Your task to perform on an android device: change the clock display to digital Image 0: 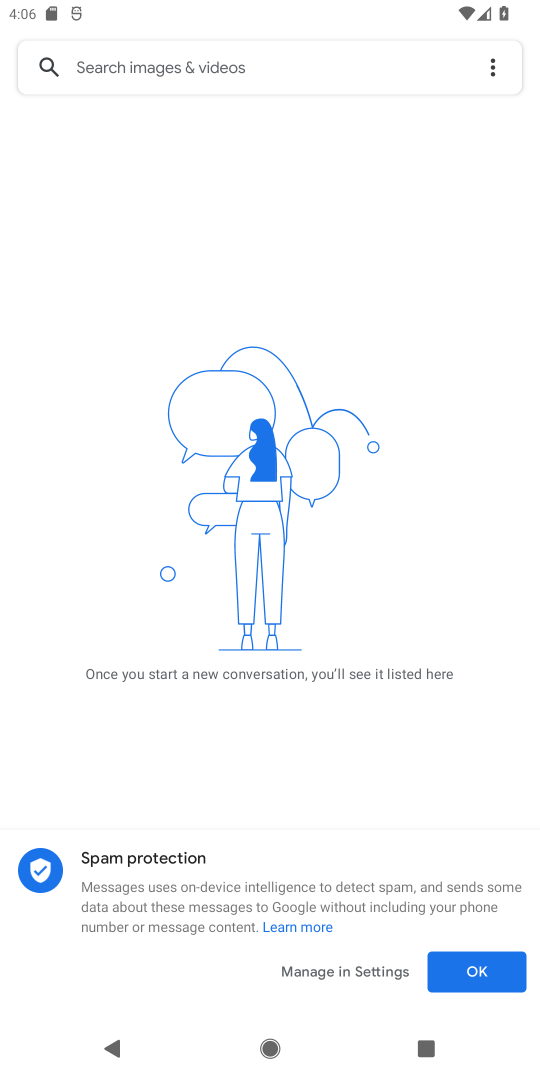
Step 0: press home button
Your task to perform on an android device: change the clock display to digital Image 1: 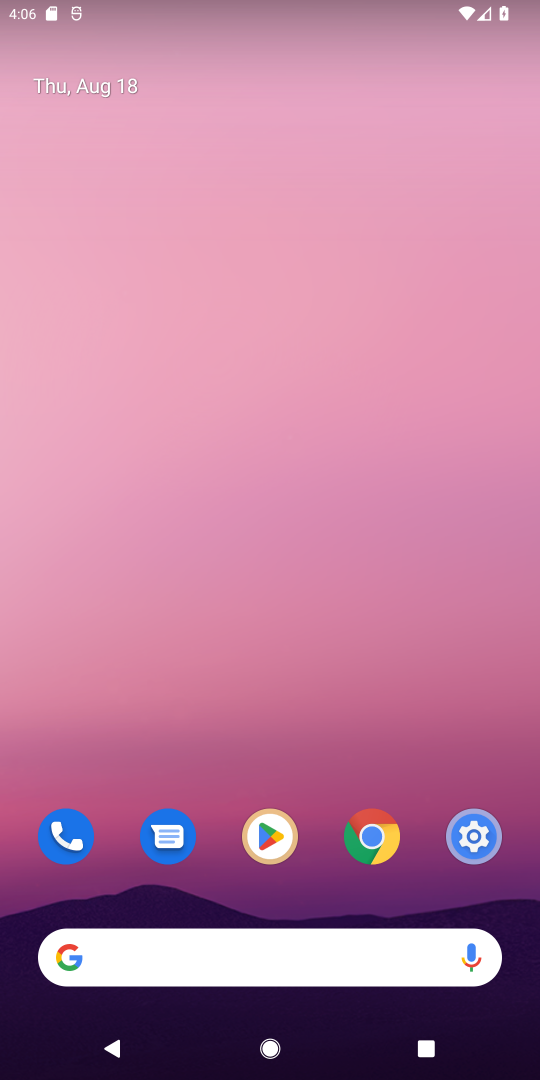
Step 1: drag from (343, 766) to (294, 251)
Your task to perform on an android device: change the clock display to digital Image 2: 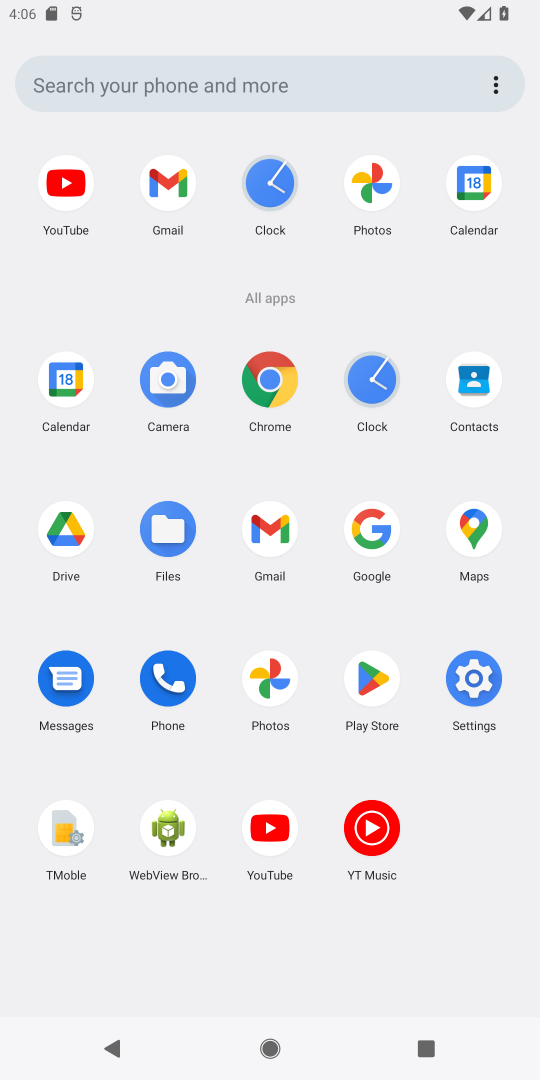
Step 2: click (362, 363)
Your task to perform on an android device: change the clock display to digital Image 3: 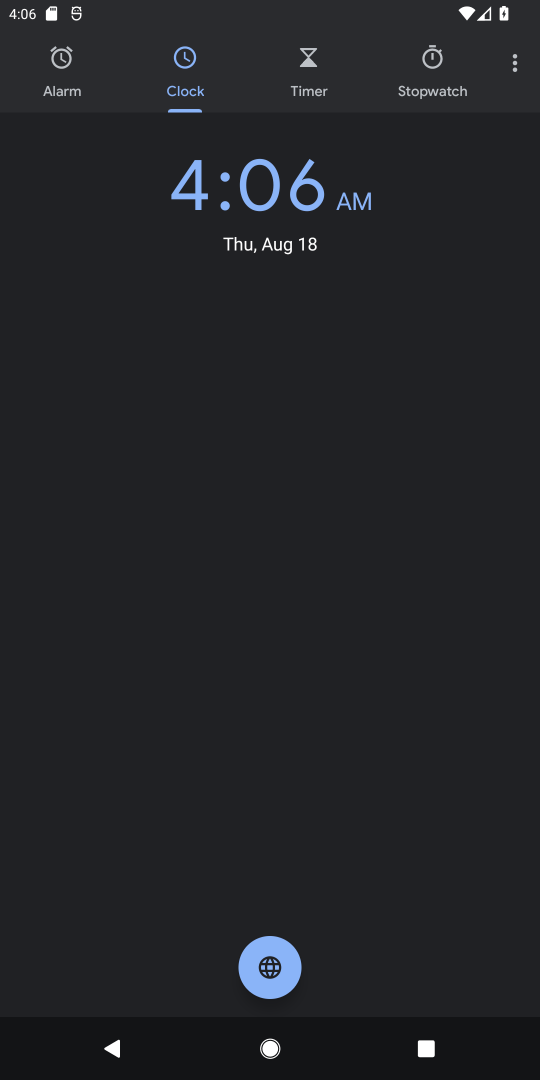
Step 3: click (523, 66)
Your task to perform on an android device: change the clock display to digital Image 4: 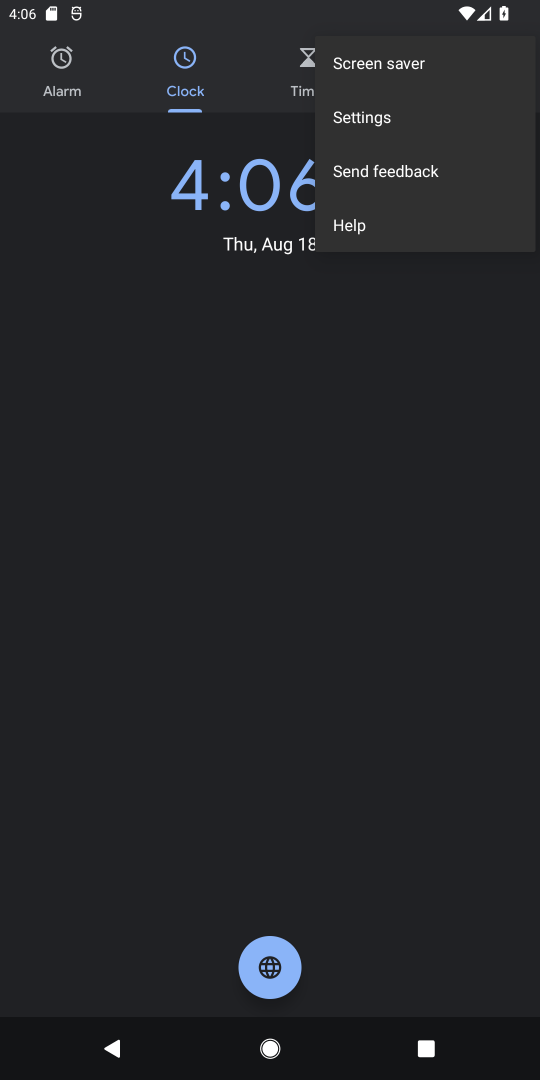
Step 4: click (362, 122)
Your task to perform on an android device: change the clock display to digital Image 5: 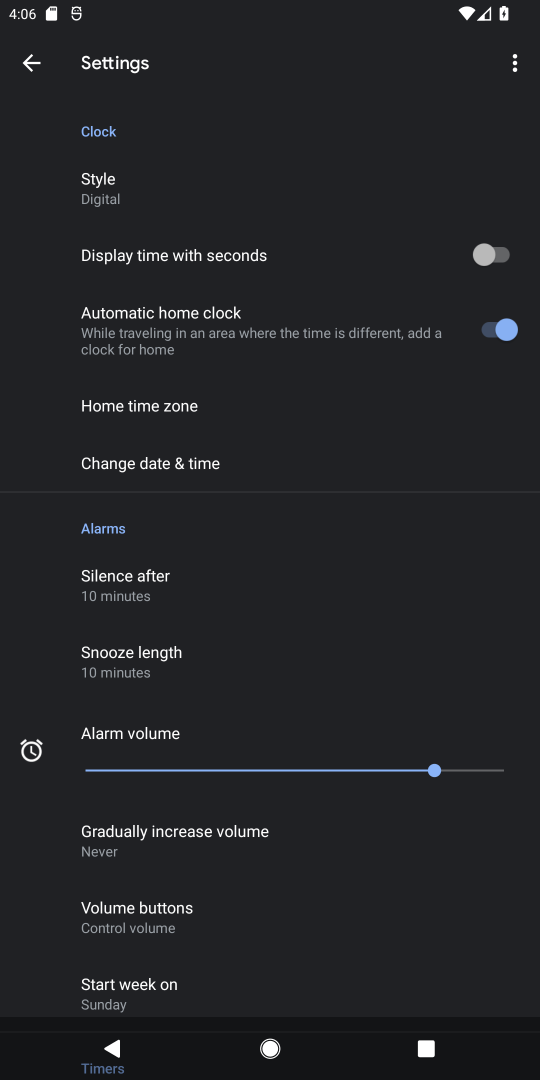
Step 5: click (133, 183)
Your task to perform on an android device: change the clock display to digital Image 6: 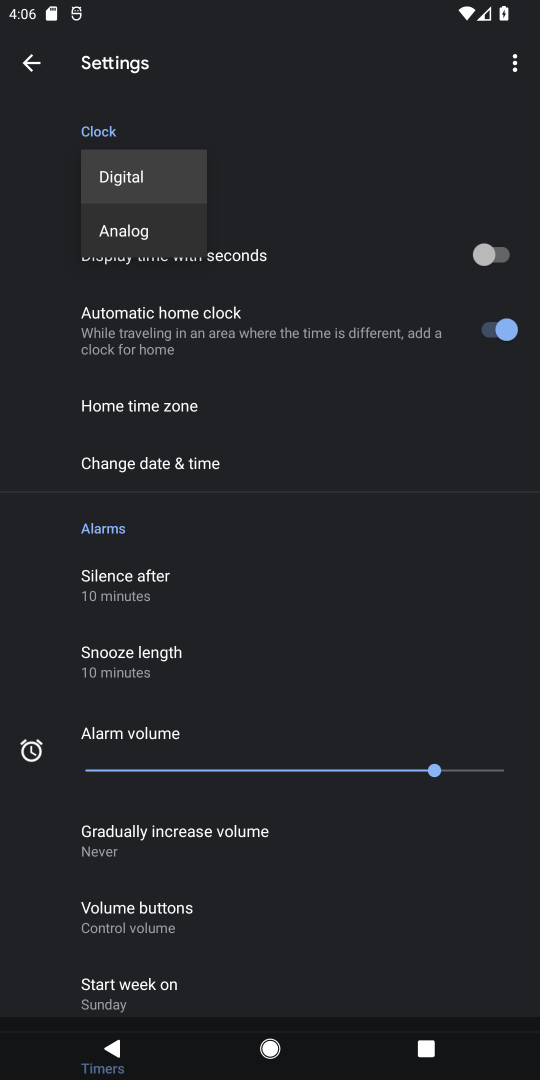
Step 6: task complete